Your task to perform on an android device: Open network settings Image 0: 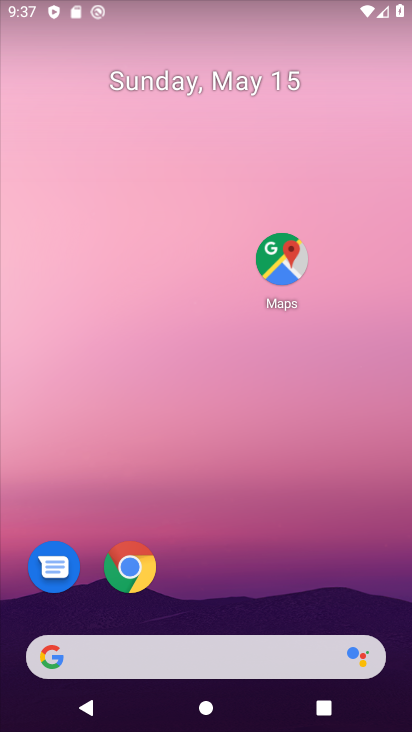
Step 0: drag from (235, 588) to (241, 168)
Your task to perform on an android device: Open network settings Image 1: 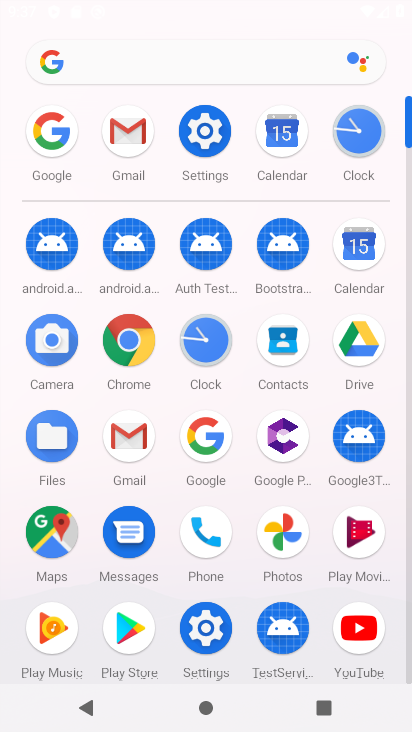
Step 1: click (210, 621)
Your task to perform on an android device: Open network settings Image 2: 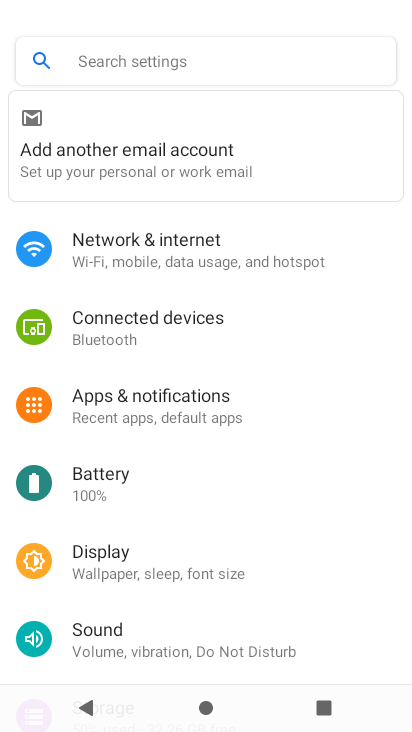
Step 2: click (197, 251)
Your task to perform on an android device: Open network settings Image 3: 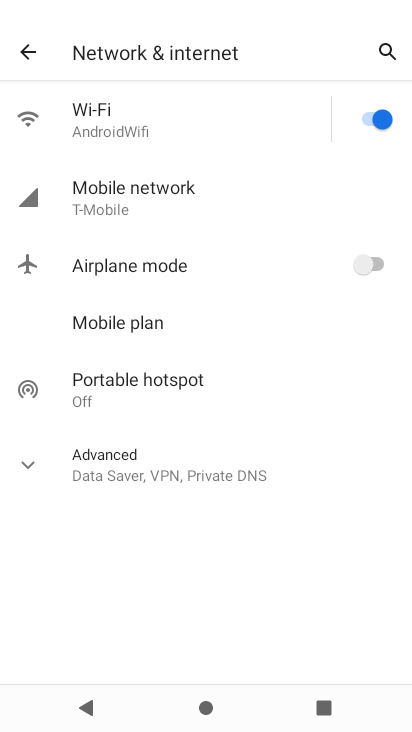
Step 3: click (178, 199)
Your task to perform on an android device: Open network settings Image 4: 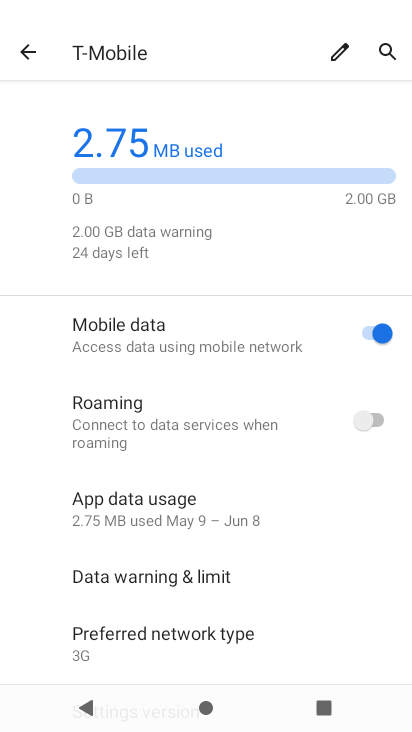
Step 4: task complete